Your task to perform on an android device: Go to ESPN.com Image 0: 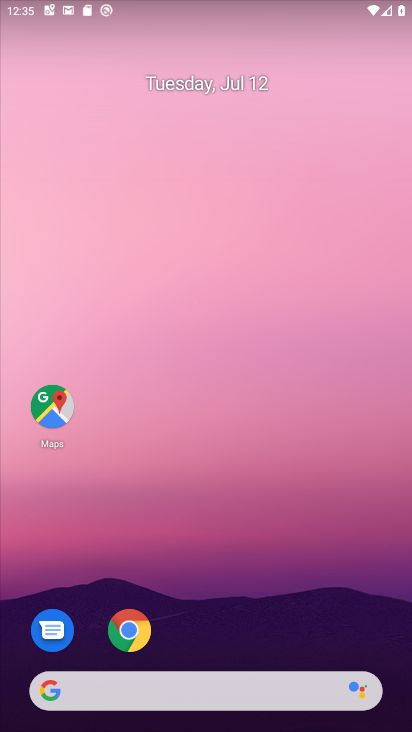
Step 0: drag from (230, 704) to (254, 198)
Your task to perform on an android device: Go to ESPN.com Image 1: 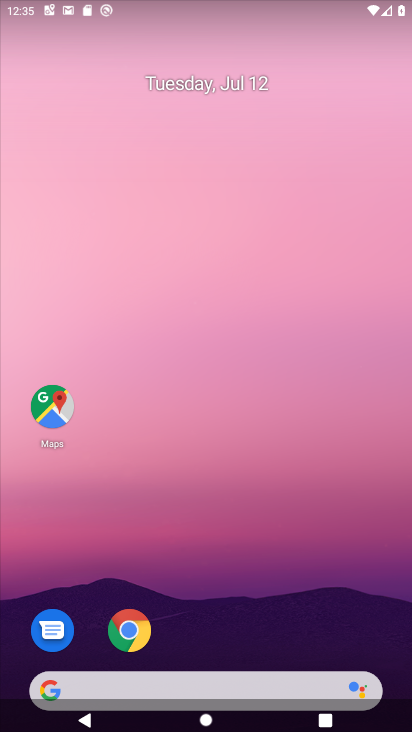
Step 1: drag from (246, 611) to (271, 148)
Your task to perform on an android device: Go to ESPN.com Image 2: 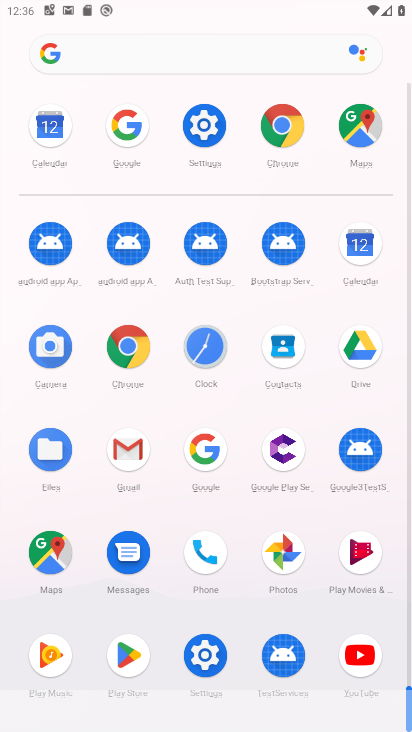
Step 2: click (285, 127)
Your task to perform on an android device: Go to ESPN.com Image 3: 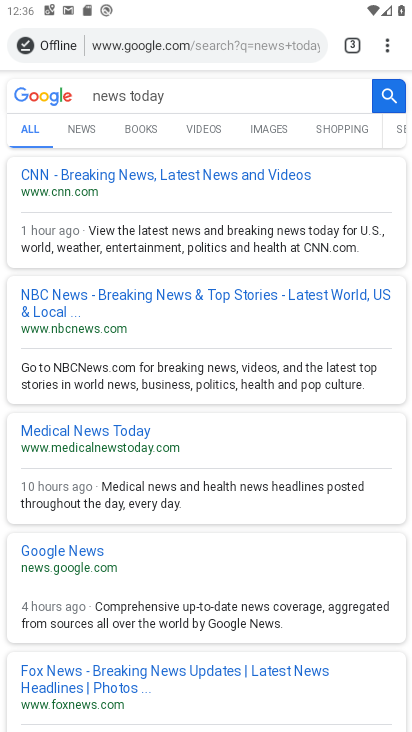
Step 3: click (214, 54)
Your task to perform on an android device: Go to ESPN.com Image 4: 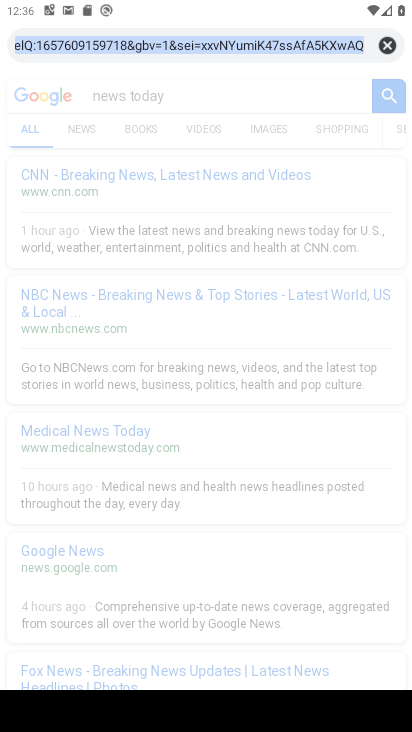
Step 4: type "espn.com"
Your task to perform on an android device: Go to ESPN.com Image 5: 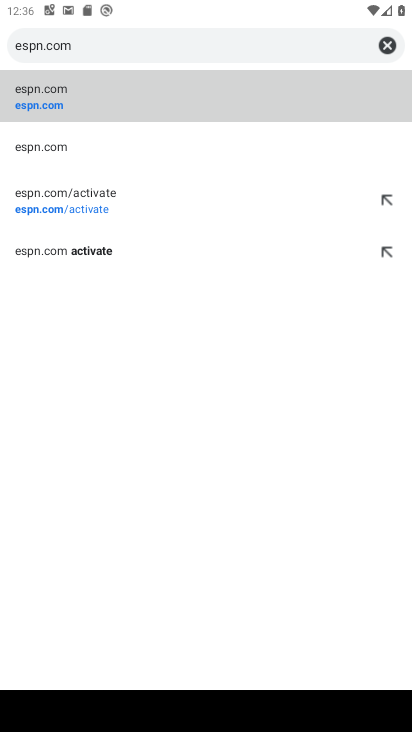
Step 5: click (181, 108)
Your task to perform on an android device: Go to ESPN.com Image 6: 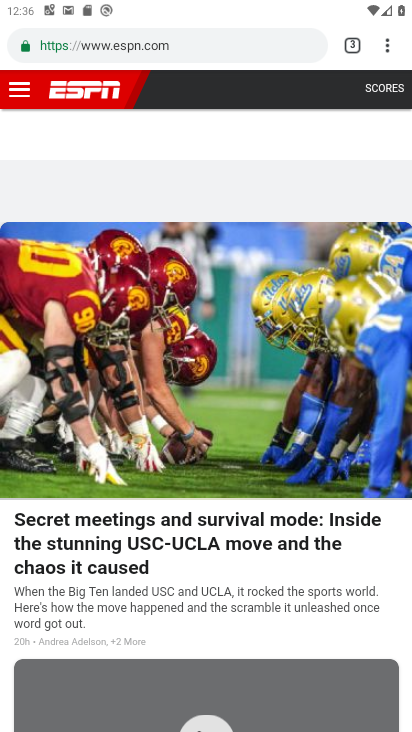
Step 6: task complete